Your task to perform on an android device: Open Google Chrome Image 0: 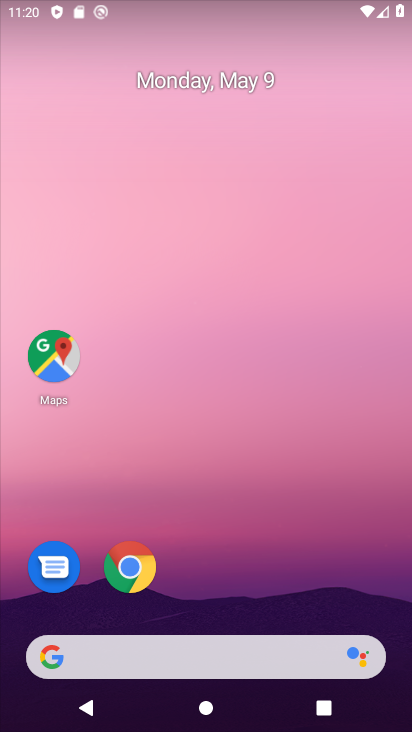
Step 0: click (150, 575)
Your task to perform on an android device: Open Google Chrome Image 1: 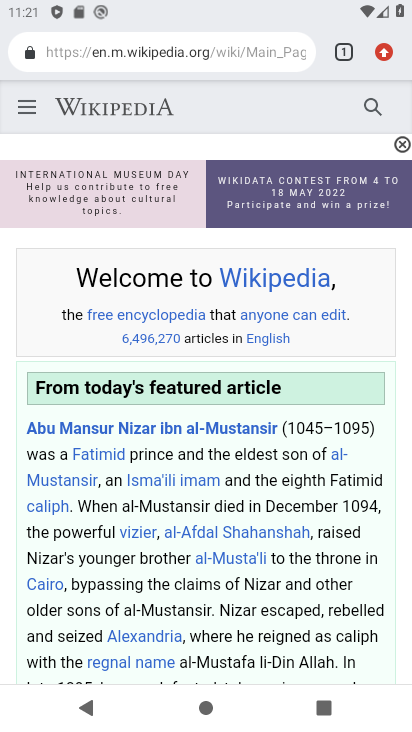
Step 1: task complete